Your task to perform on an android device: Show me the alarms in the clock app Image 0: 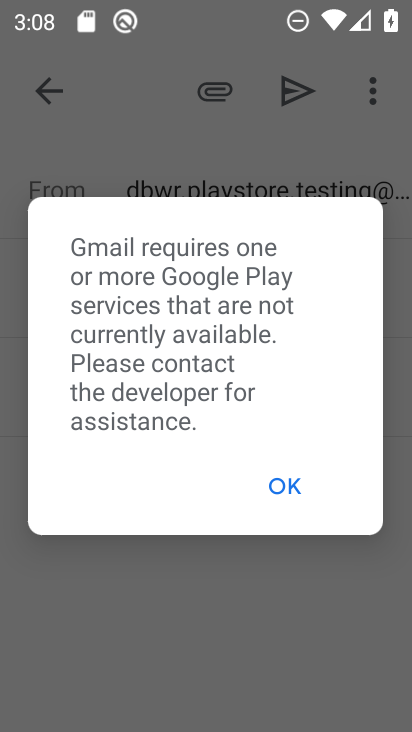
Step 0: press home button
Your task to perform on an android device: Show me the alarms in the clock app Image 1: 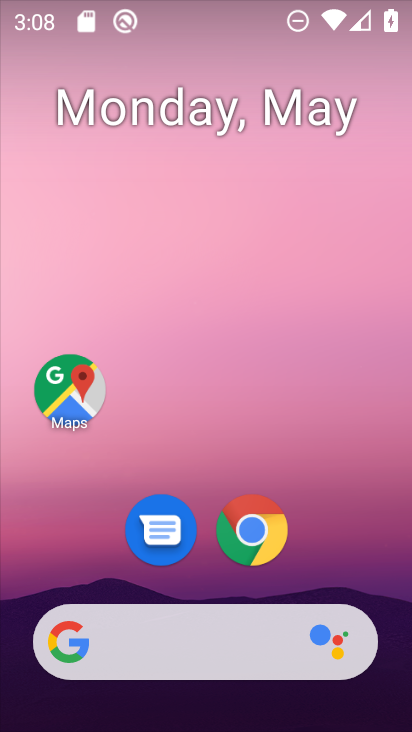
Step 1: drag from (203, 562) to (202, 97)
Your task to perform on an android device: Show me the alarms in the clock app Image 2: 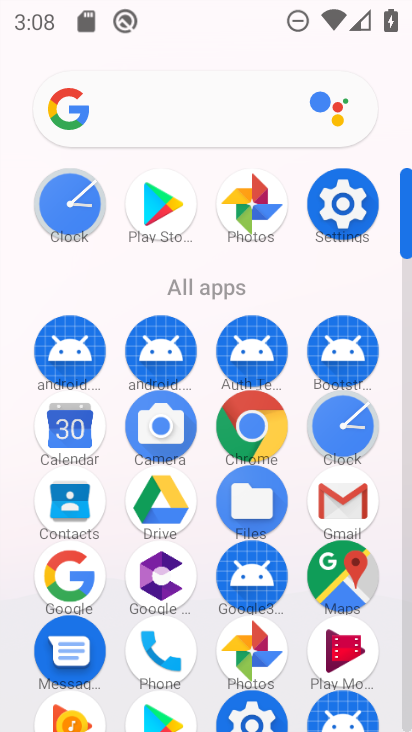
Step 2: click (94, 201)
Your task to perform on an android device: Show me the alarms in the clock app Image 3: 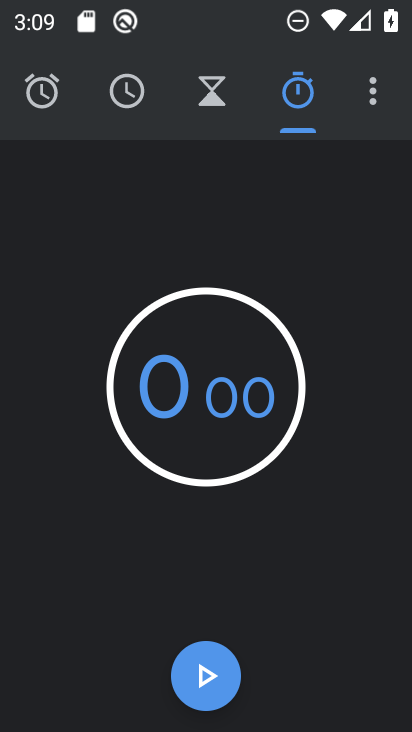
Step 3: click (47, 93)
Your task to perform on an android device: Show me the alarms in the clock app Image 4: 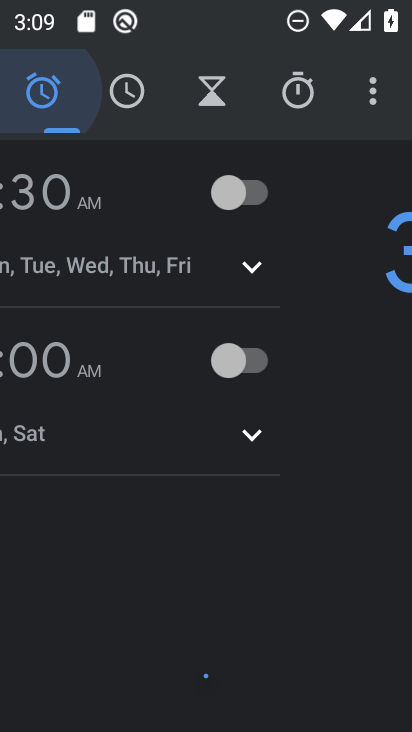
Step 4: click (47, 93)
Your task to perform on an android device: Show me the alarms in the clock app Image 5: 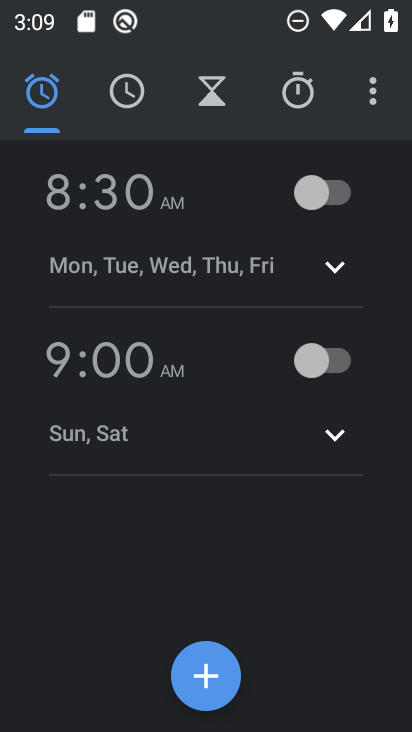
Step 5: click (47, 93)
Your task to perform on an android device: Show me the alarms in the clock app Image 6: 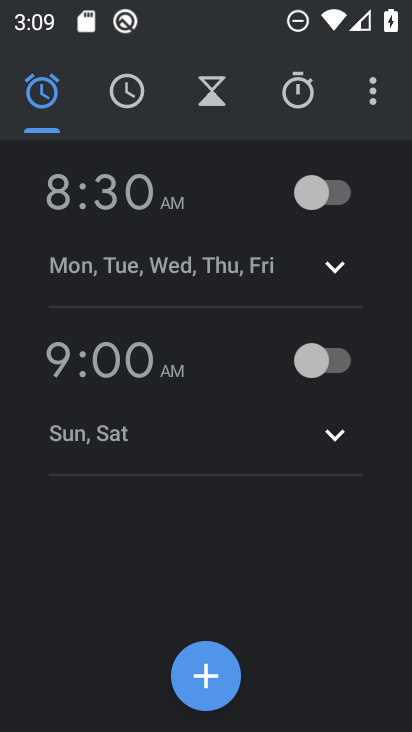
Step 6: click (338, 195)
Your task to perform on an android device: Show me the alarms in the clock app Image 7: 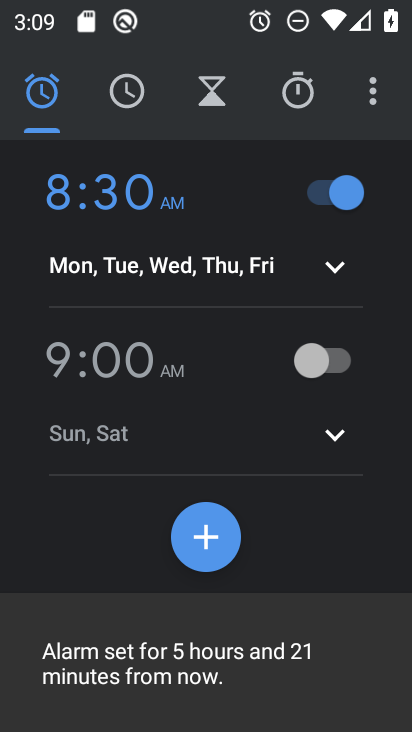
Step 7: task complete